Your task to perform on an android device: turn on javascript in the chrome app Image 0: 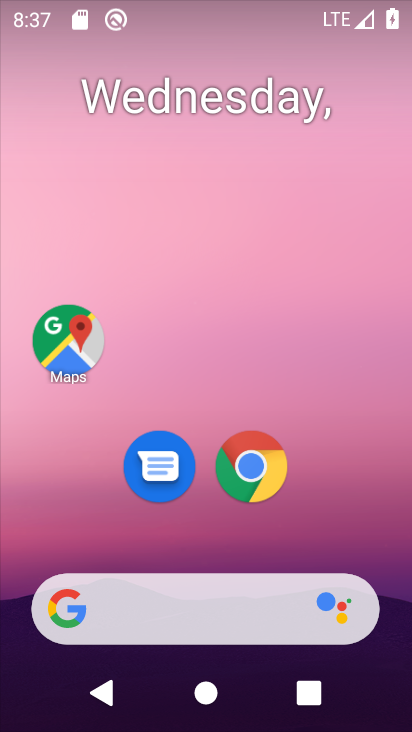
Step 0: click (251, 462)
Your task to perform on an android device: turn on javascript in the chrome app Image 1: 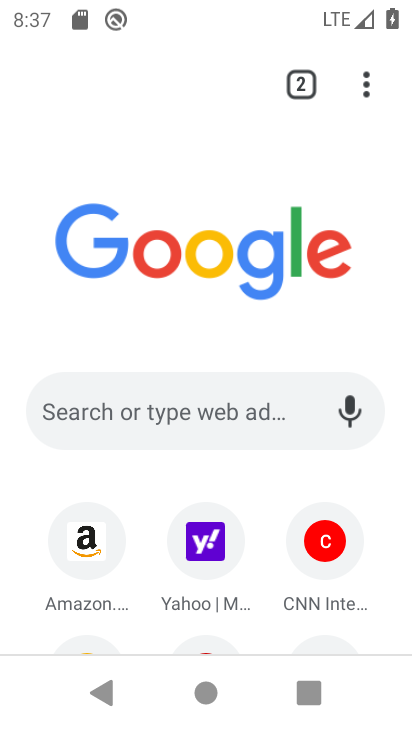
Step 1: click (364, 92)
Your task to perform on an android device: turn on javascript in the chrome app Image 2: 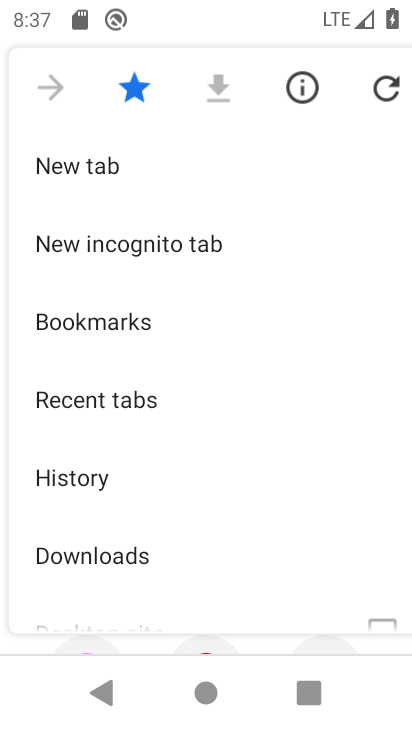
Step 2: drag from (119, 567) to (123, 144)
Your task to perform on an android device: turn on javascript in the chrome app Image 3: 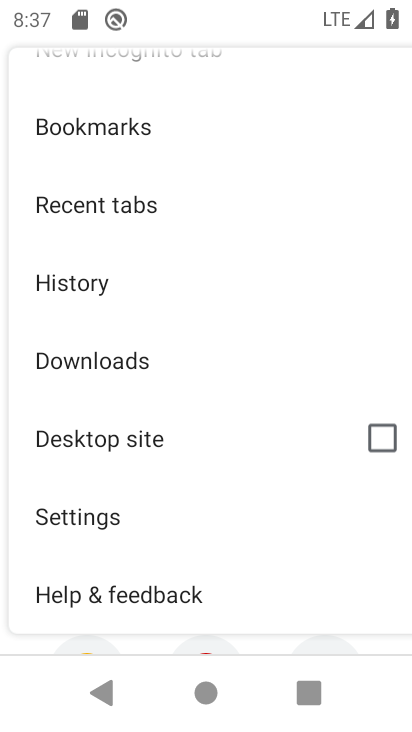
Step 3: click (91, 514)
Your task to perform on an android device: turn on javascript in the chrome app Image 4: 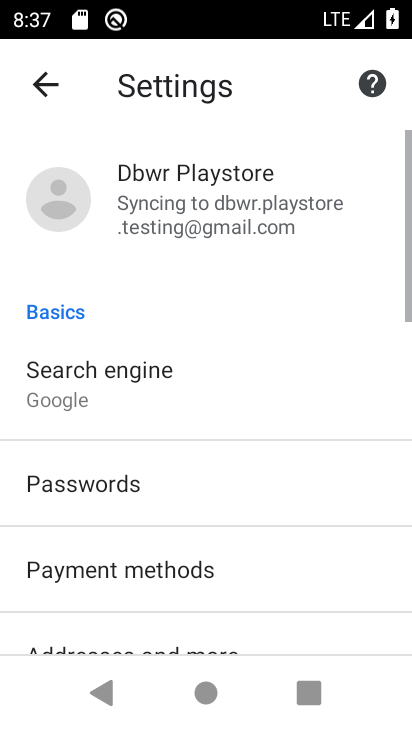
Step 4: drag from (152, 621) to (151, 188)
Your task to perform on an android device: turn on javascript in the chrome app Image 5: 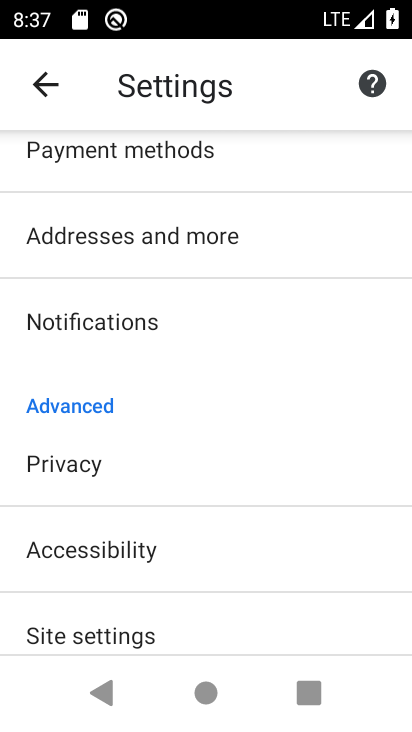
Step 5: drag from (142, 589) to (156, 256)
Your task to perform on an android device: turn on javascript in the chrome app Image 6: 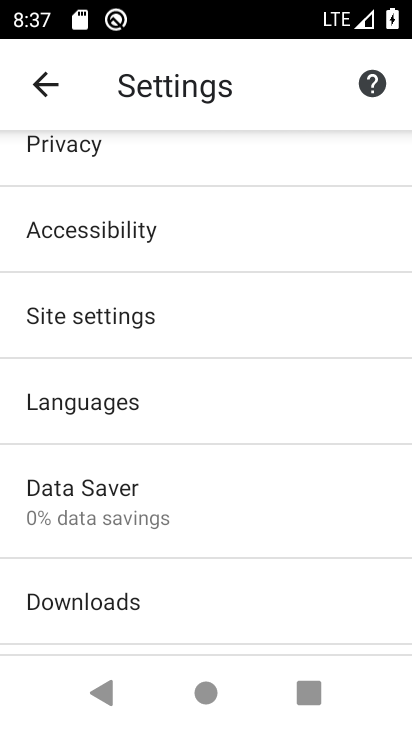
Step 6: click (94, 315)
Your task to perform on an android device: turn on javascript in the chrome app Image 7: 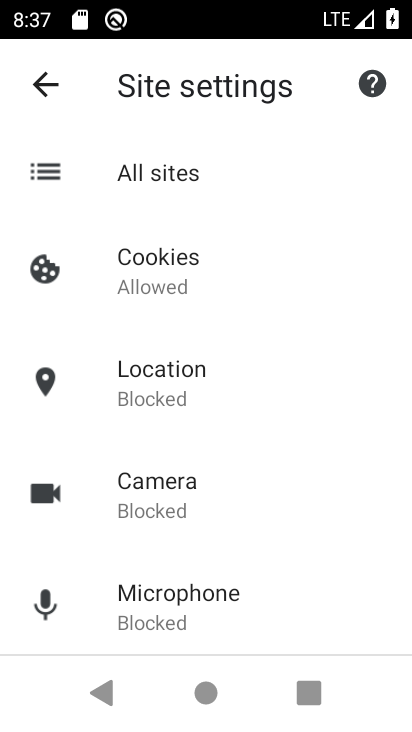
Step 7: drag from (222, 616) to (219, 232)
Your task to perform on an android device: turn on javascript in the chrome app Image 8: 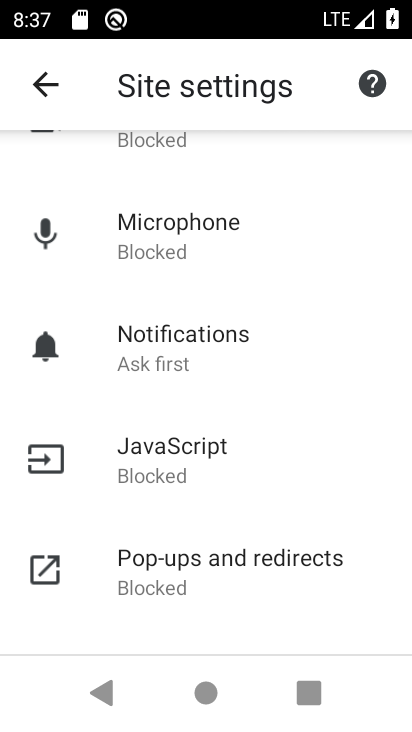
Step 8: click (172, 446)
Your task to perform on an android device: turn on javascript in the chrome app Image 9: 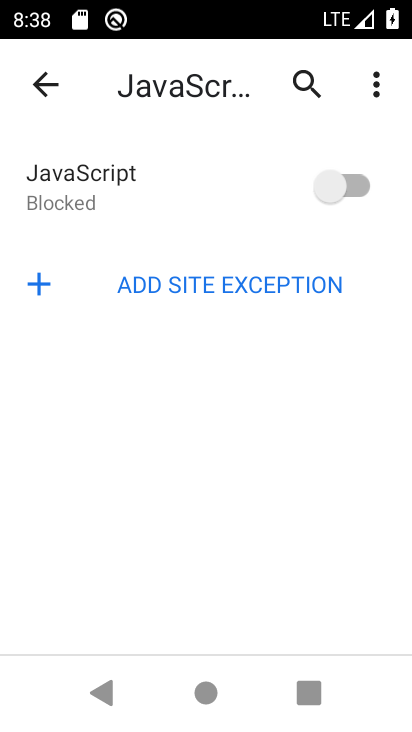
Step 9: click (362, 183)
Your task to perform on an android device: turn on javascript in the chrome app Image 10: 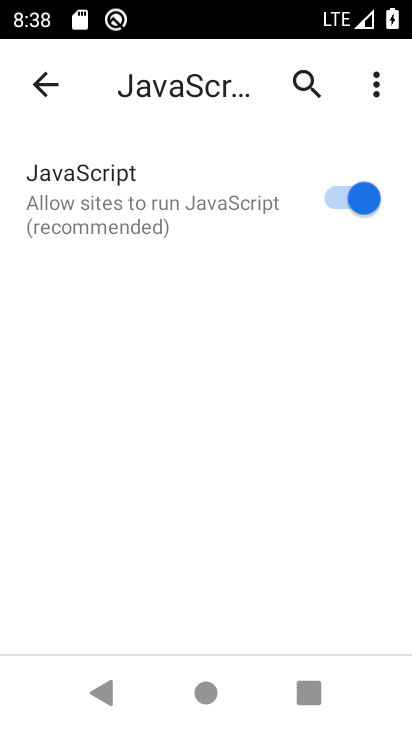
Step 10: task complete